Your task to perform on an android device: star an email in the gmail app Image 0: 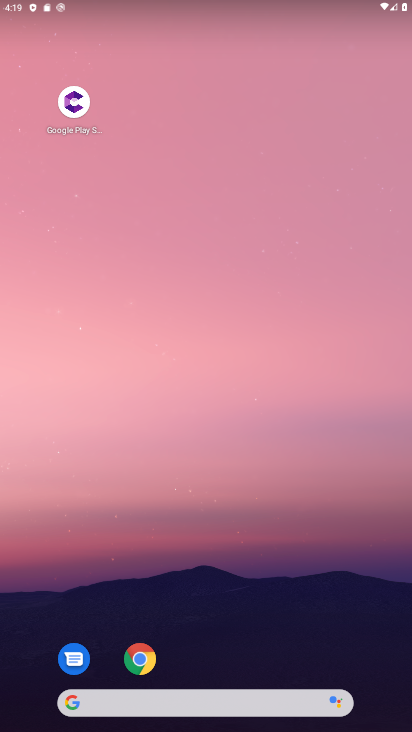
Step 0: drag from (306, 609) to (359, 94)
Your task to perform on an android device: star an email in the gmail app Image 1: 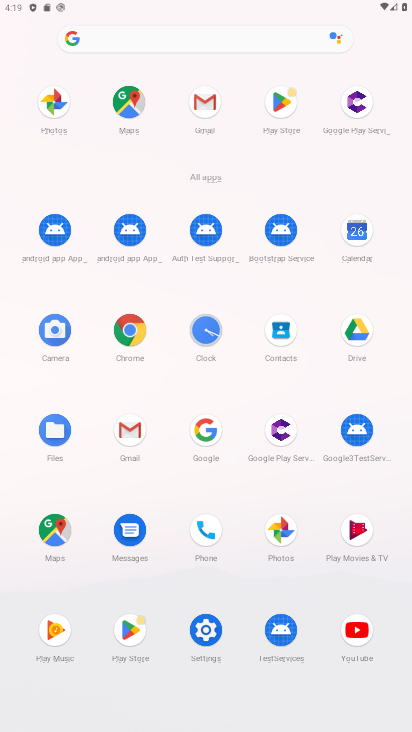
Step 1: click (136, 451)
Your task to perform on an android device: star an email in the gmail app Image 2: 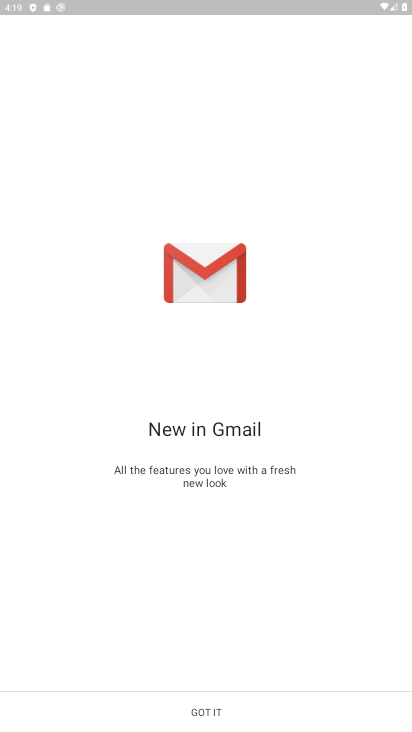
Step 2: click (206, 706)
Your task to perform on an android device: star an email in the gmail app Image 3: 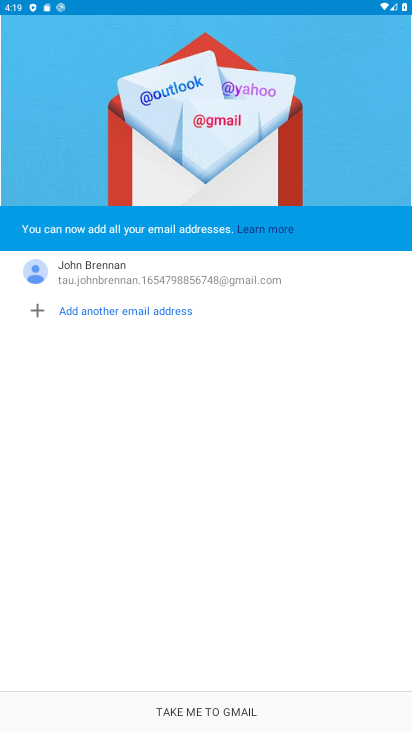
Step 3: click (206, 706)
Your task to perform on an android device: star an email in the gmail app Image 4: 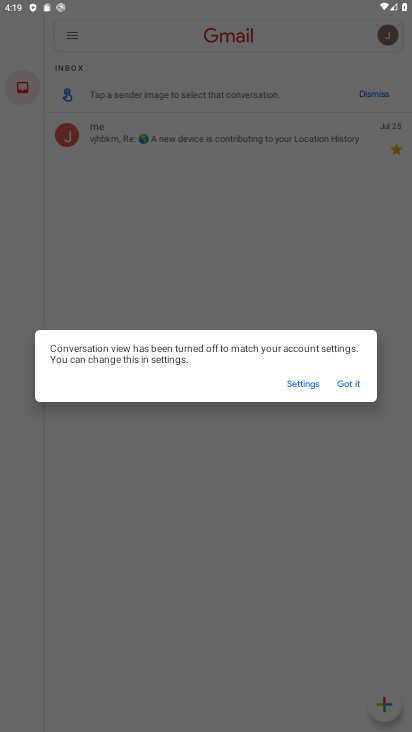
Step 4: task complete